Your task to perform on an android device: change the upload size in google photos Image 0: 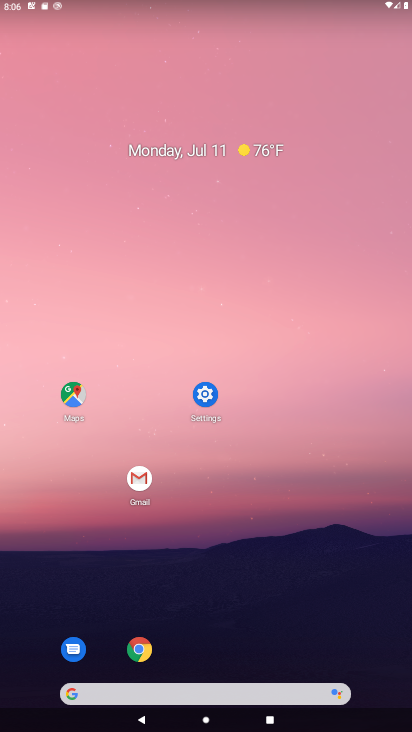
Step 0: drag from (397, 707) to (304, 160)
Your task to perform on an android device: change the upload size in google photos Image 1: 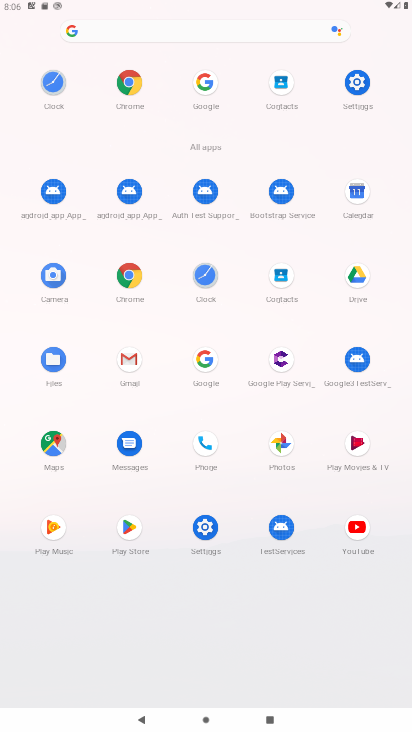
Step 1: click (293, 445)
Your task to perform on an android device: change the upload size in google photos Image 2: 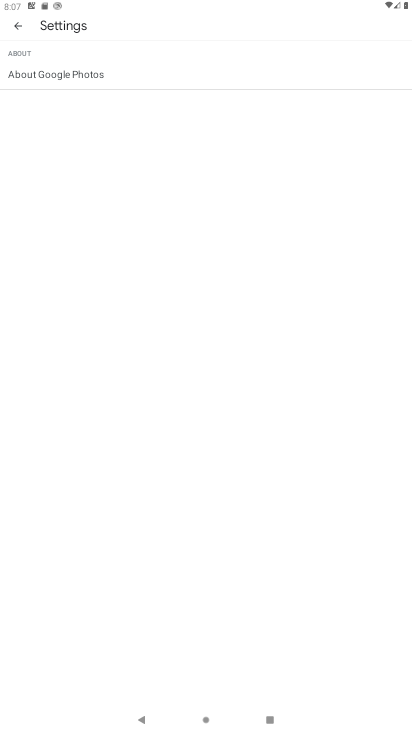
Step 2: task complete